Your task to perform on an android device: turn pop-ups off in chrome Image 0: 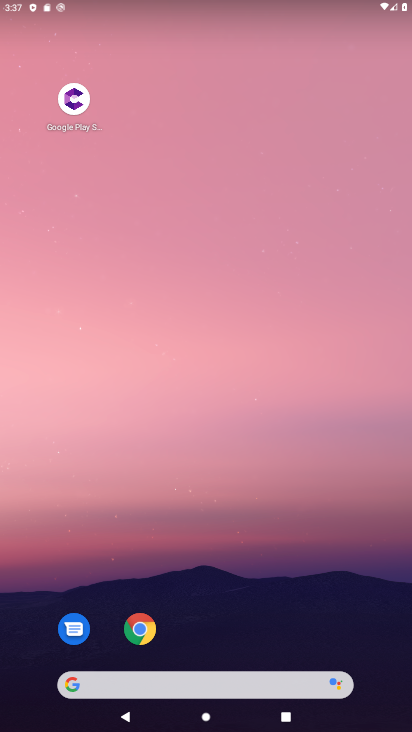
Step 0: click (146, 632)
Your task to perform on an android device: turn pop-ups off in chrome Image 1: 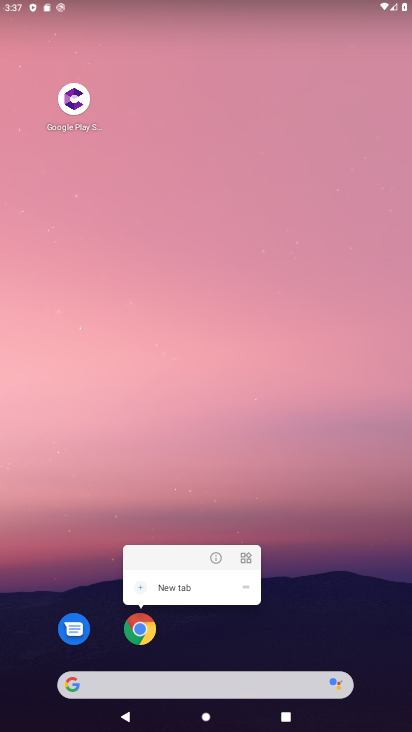
Step 1: click (139, 635)
Your task to perform on an android device: turn pop-ups off in chrome Image 2: 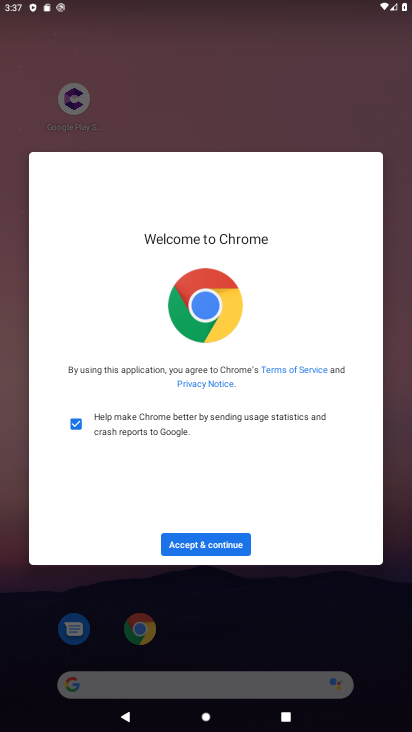
Step 2: click (225, 546)
Your task to perform on an android device: turn pop-ups off in chrome Image 3: 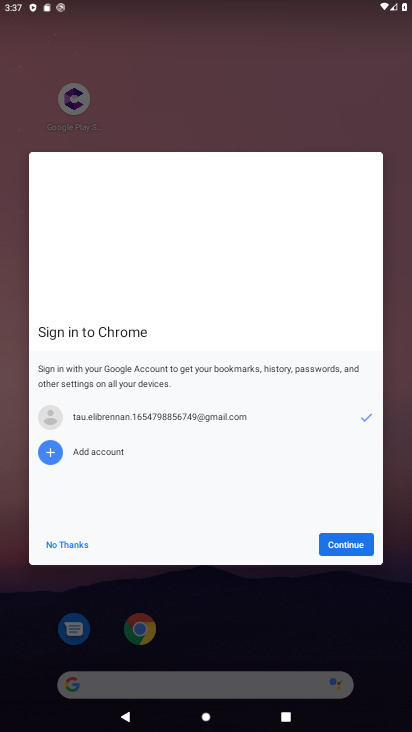
Step 3: click (330, 555)
Your task to perform on an android device: turn pop-ups off in chrome Image 4: 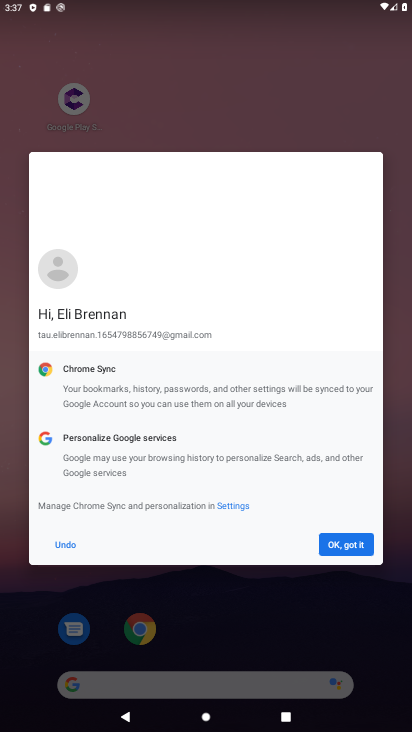
Step 4: click (355, 553)
Your task to perform on an android device: turn pop-ups off in chrome Image 5: 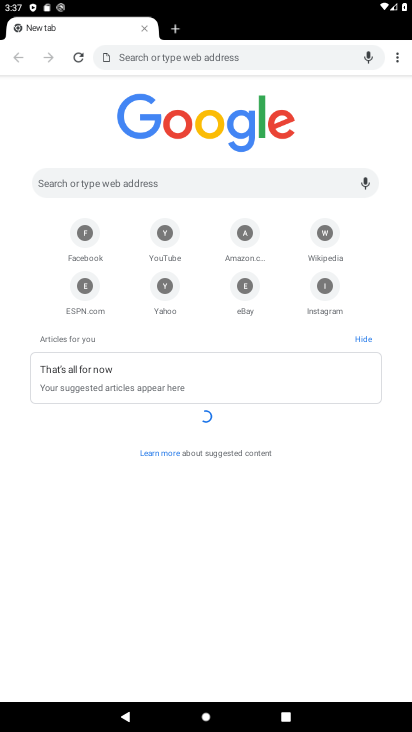
Step 5: drag from (390, 54) to (325, 257)
Your task to perform on an android device: turn pop-ups off in chrome Image 6: 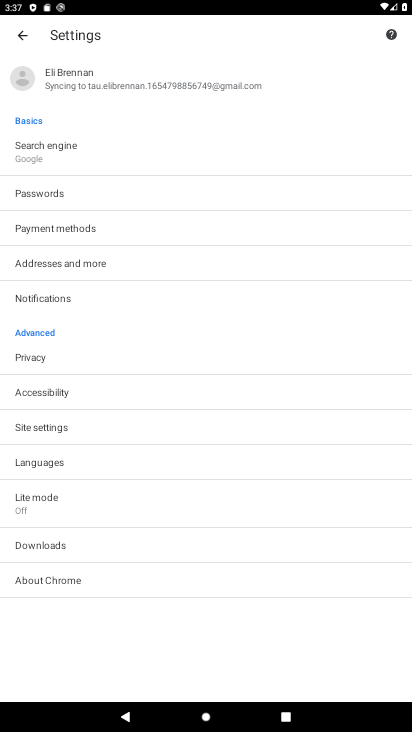
Step 6: click (108, 423)
Your task to perform on an android device: turn pop-ups off in chrome Image 7: 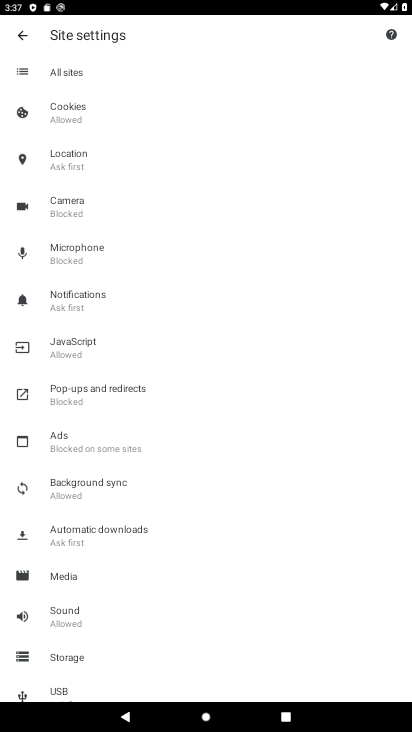
Step 7: click (142, 393)
Your task to perform on an android device: turn pop-ups off in chrome Image 8: 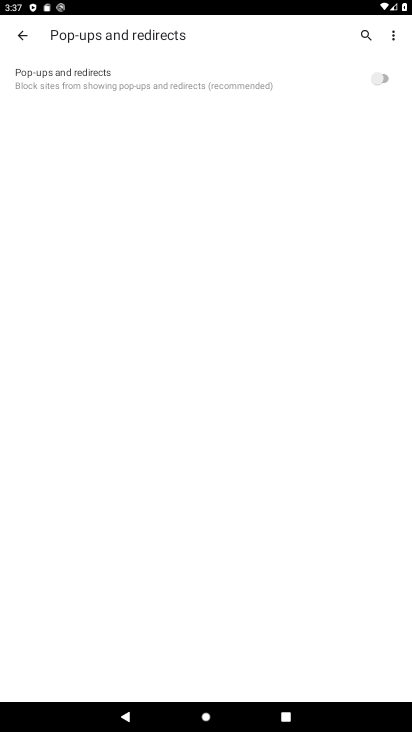
Step 8: task complete